Your task to perform on an android device: change alarm snooze length Image 0: 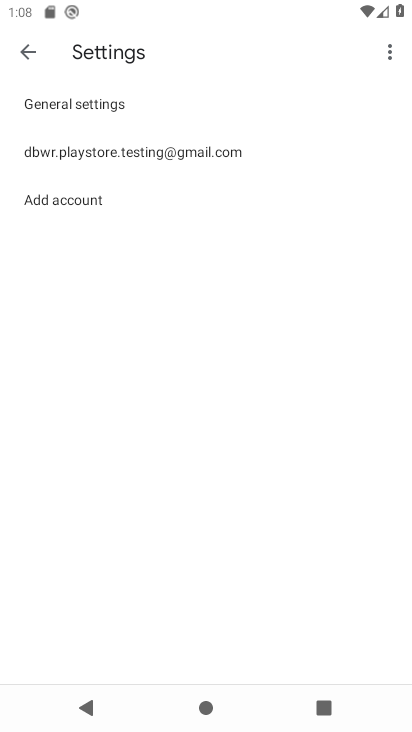
Step 0: press home button
Your task to perform on an android device: change alarm snooze length Image 1: 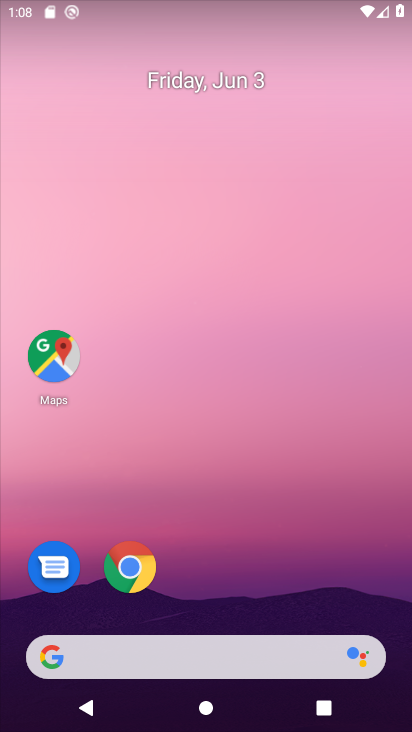
Step 1: drag from (236, 579) to (269, 205)
Your task to perform on an android device: change alarm snooze length Image 2: 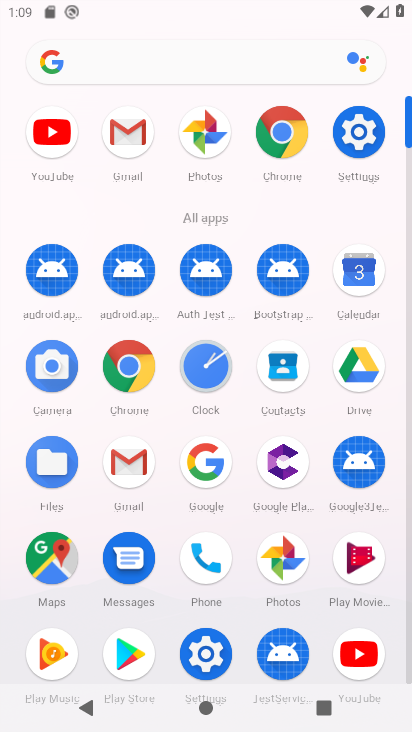
Step 2: click (209, 342)
Your task to perform on an android device: change alarm snooze length Image 3: 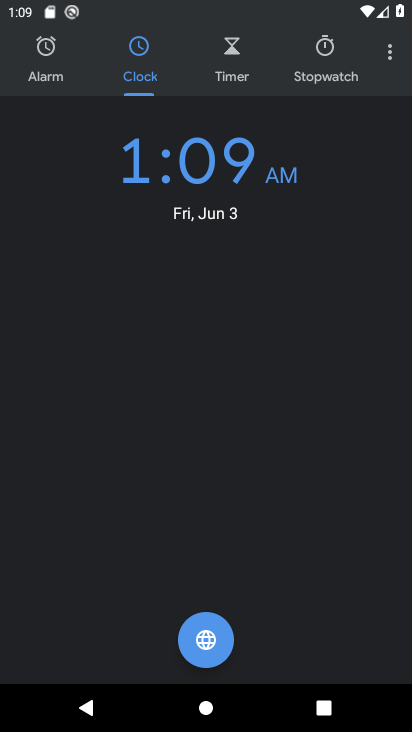
Step 3: click (376, 50)
Your task to perform on an android device: change alarm snooze length Image 4: 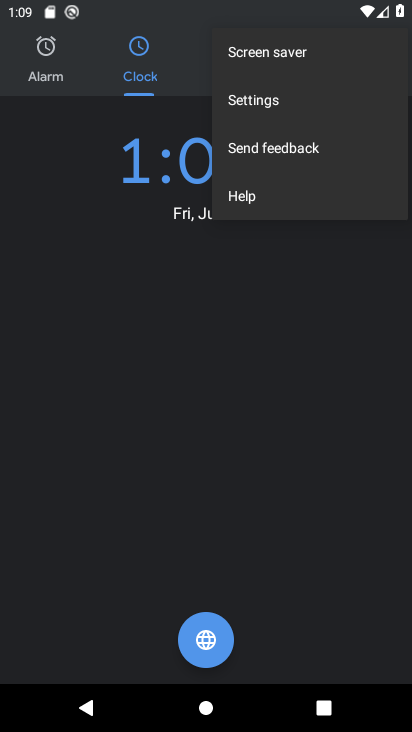
Step 4: click (292, 106)
Your task to perform on an android device: change alarm snooze length Image 5: 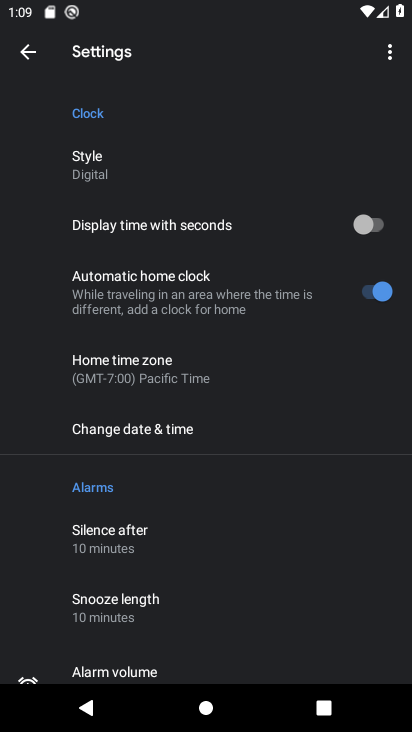
Step 5: click (176, 584)
Your task to perform on an android device: change alarm snooze length Image 6: 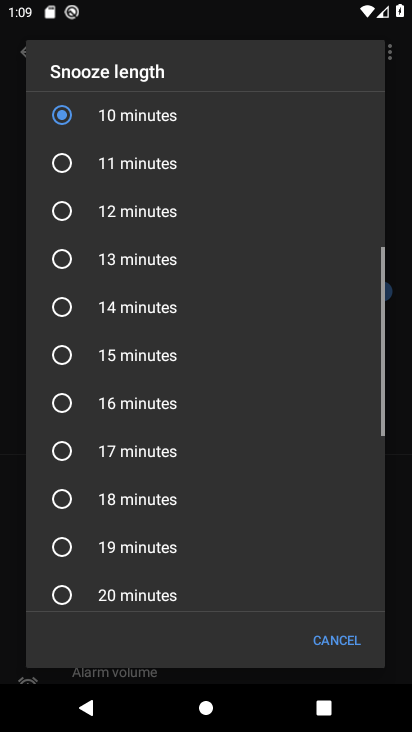
Step 6: click (115, 351)
Your task to perform on an android device: change alarm snooze length Image 7: 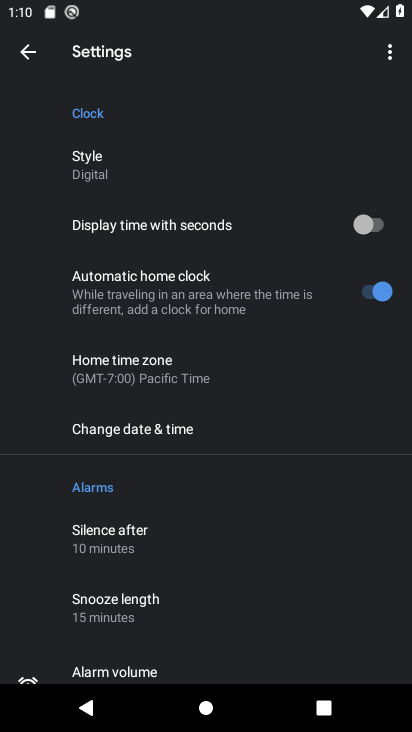
Step 7: task complete